Your task to perform on an android device: Play the last video I watched on Youtube Image 0: 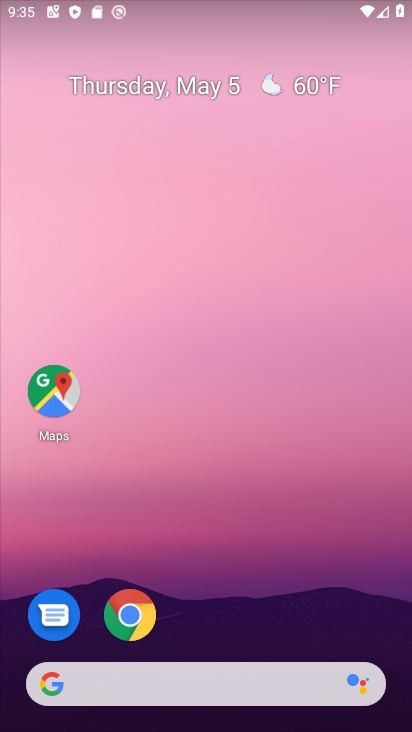
Step 0: drag from (249, 636) to (321, 119)
Your task to perform on an android device: Play the last video I watched on Youtube Image 1: 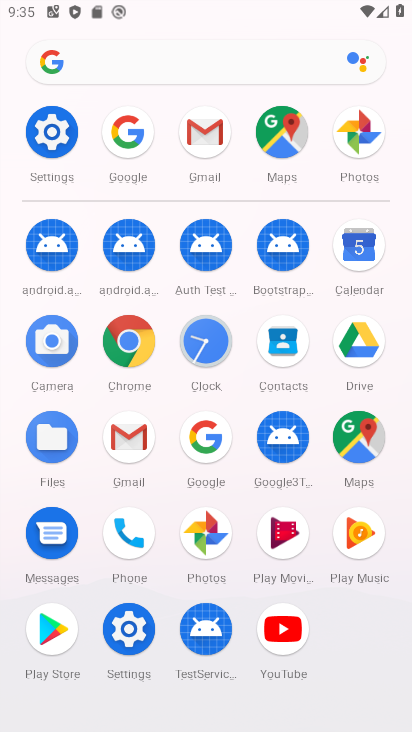
Step 1: click (285, 632)
Your task to perform on an android device: Play the last video I watched on Youtube Image 2: 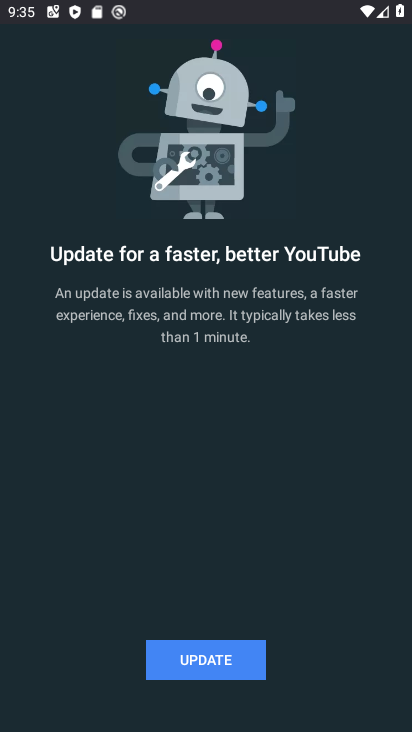
Step 2: click (195, 663)
Your task to perform on an android device: Play the last video I watched on Youtube Image 3: 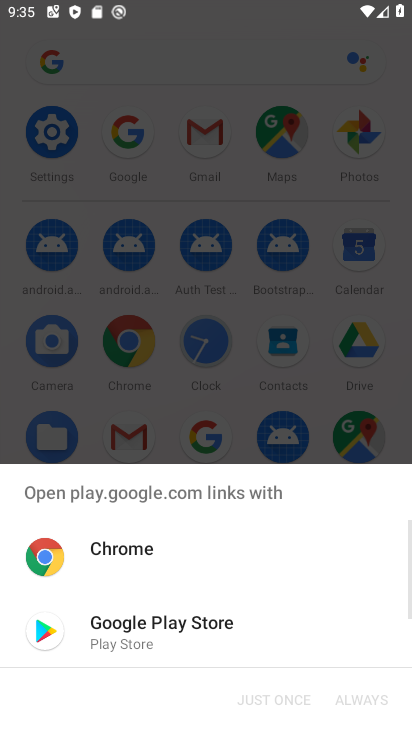
Step 3: click (139, 641)
Your task to perform on an android device: Play the last video I watched on Youtube Image 4: 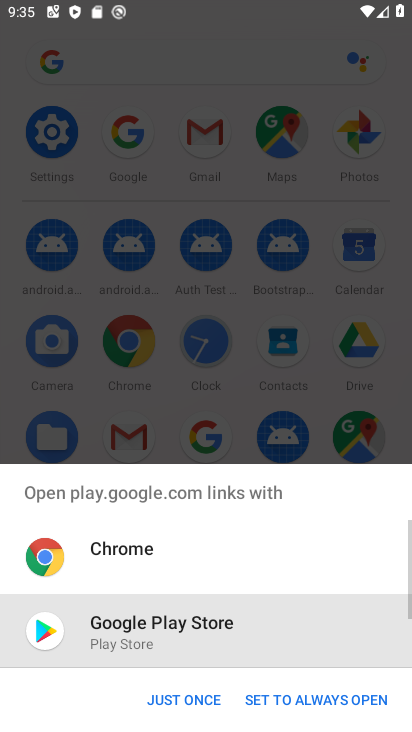
Step 4: click (194, 698)
Your task to perform on an android device: Play the last video I watched on Youtube Image 5: 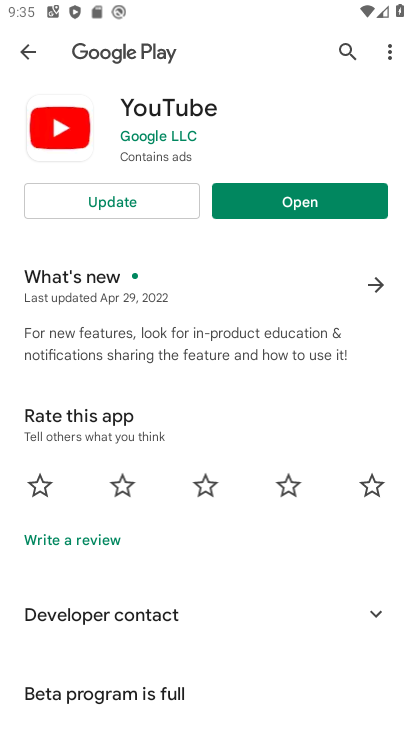
Step 5: click (105, 207)
Your task to perform on an android device: Play the last video I watched on Youtube Image 6: 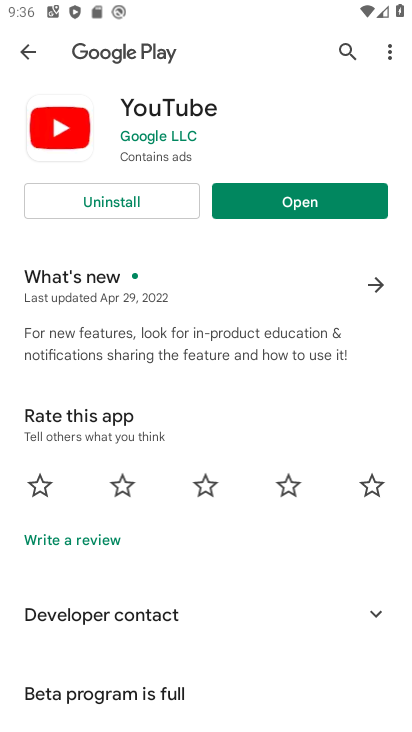
Step 6: click (304, 200)
Your task to perform on an android device: Play the last video I watched on Youtube Image 7: 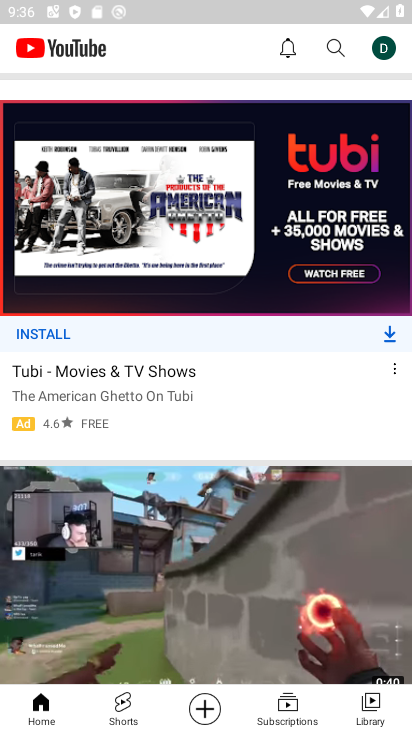
Step 7: click (336, 45)
Your task to perform on an android device: Play the last video I watched on Youtube Image 8: 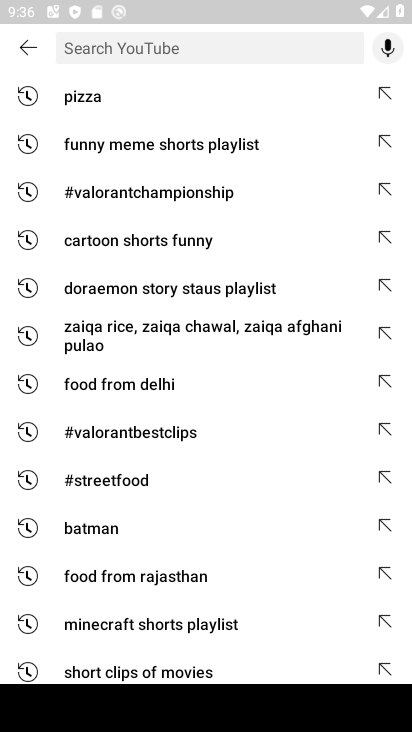
Step 8: task complete